Your task to perform on an android device: Open the calendar app, open the side menu, and click the "Day" option Image 0: 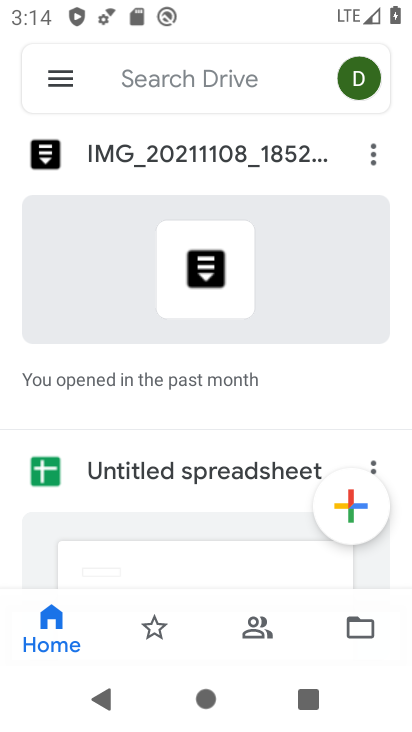
Step 0: press home button
Your task to perform on an android device: Open the calendar app, open the side menu, and click the "Day" option Image 1: 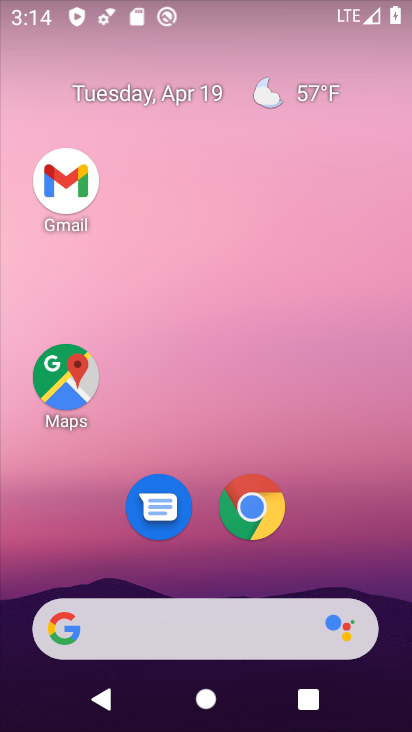
Step 1: drag from (180, 584) to (274, 203)
Your task to perform on an android device: Open the calendar app, open the side menu, and click the "Day" option Image 2: 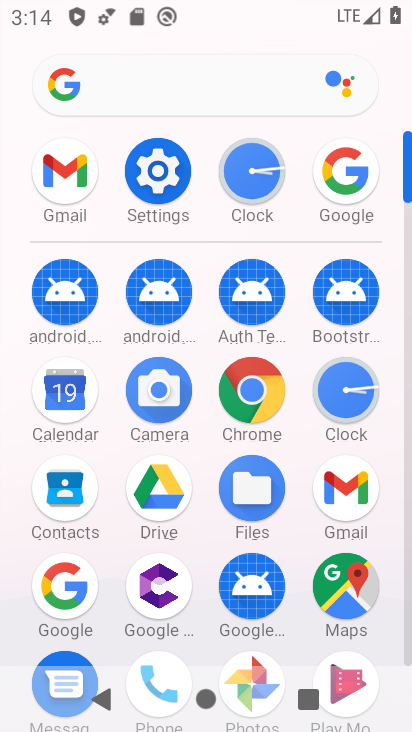
Step 2: click (60, 379)
Your task to perform on an android device: Open the calendar app, open the side menu, and click the "Day" option Image 3: 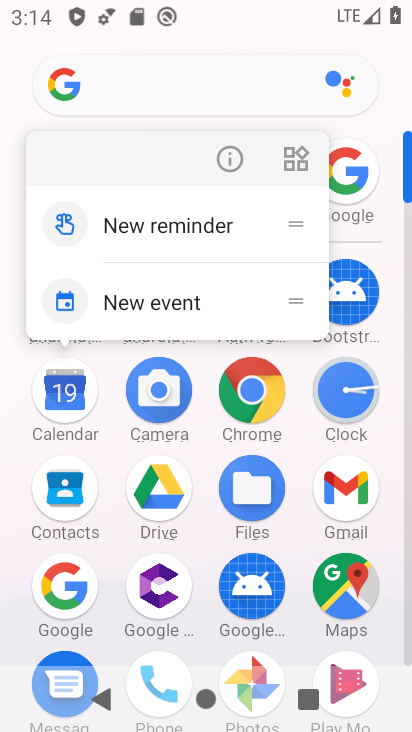
Step 3: click (77, 397)
Your task to perform on an android device: Open the calendar app, open the side menu, and click the "Day" option Image 4: 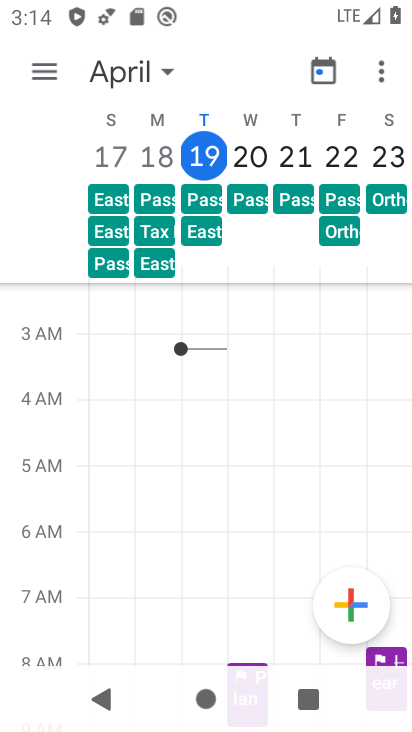
Step 4: click (49, 65)
Your task to perform on an android device: Open the calendar app, open the side menu, and click the "Day" option Image 5: 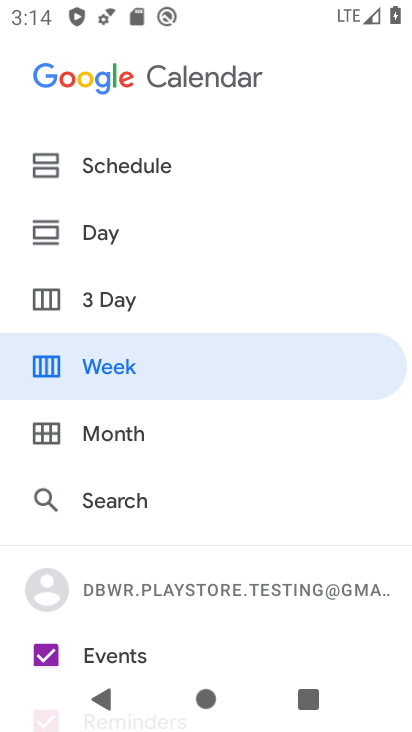
Step 5: click (169, 230)
Your task to perform on an android device: Open the calendar app, open the side menu, and click the "Day" option Image 6: 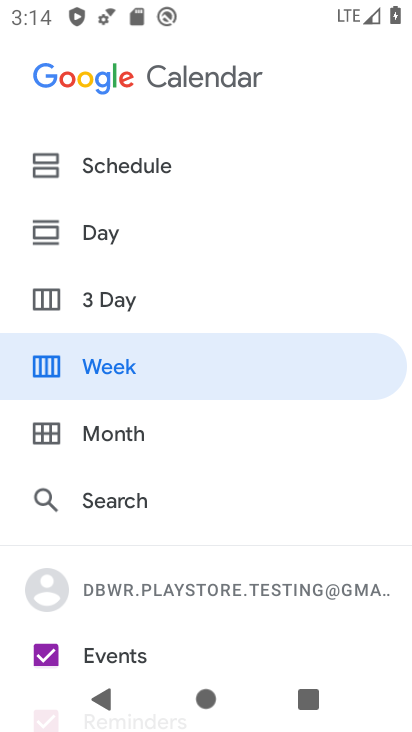
Step 6: click (158, 237)
Your task to perform on an android device: Open the calendar app, open the side menu, and click the "Day" option Image 7: 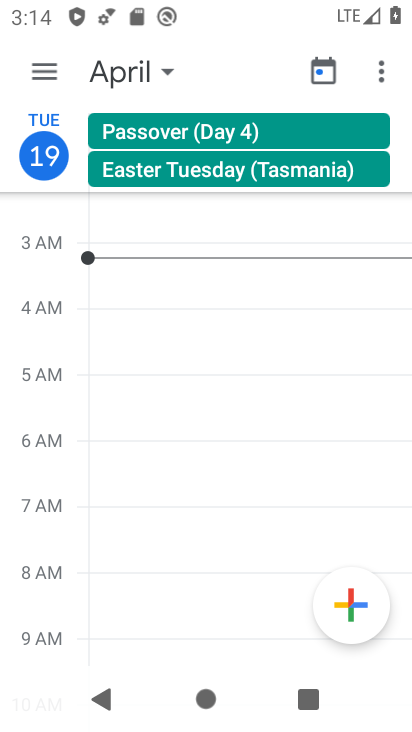
Step 7: task complete